Your task to perform on an android device: Set the phone to "Do not disturb". Image 0: 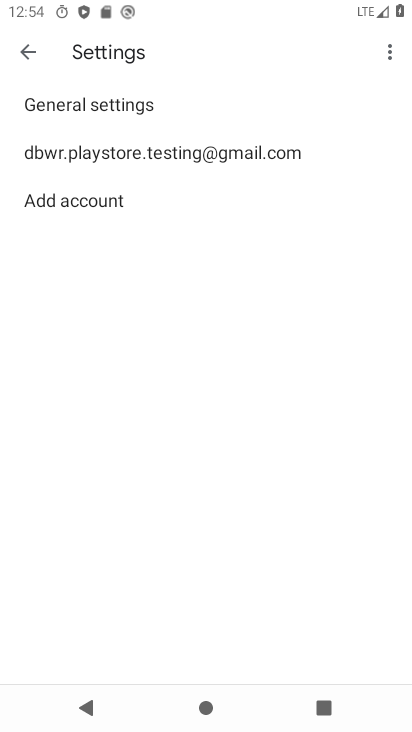
Step 0: press home button
Your task to perform on an android device: Set the phone to "Do not disturb". Image 1: 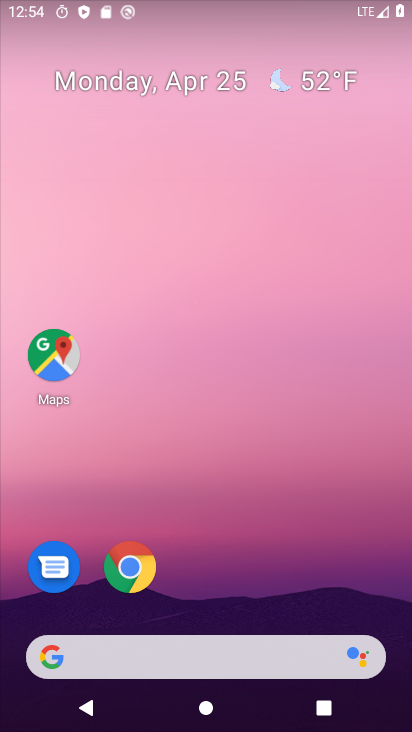
Step 1: drag from (267, 584) to (315, 66)
Your task to perform on an android device: Set the phone to "Do not disturb". Image 2: 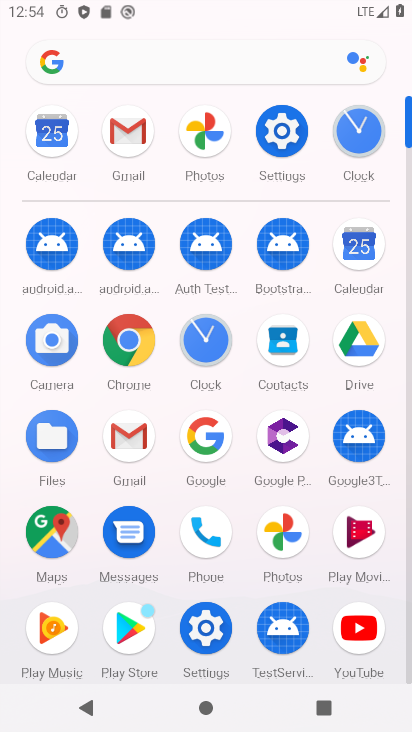
Step 2: click (282, 126)
Your task to perform on an android device: Set the phone to "Do not disturb". Image 3: 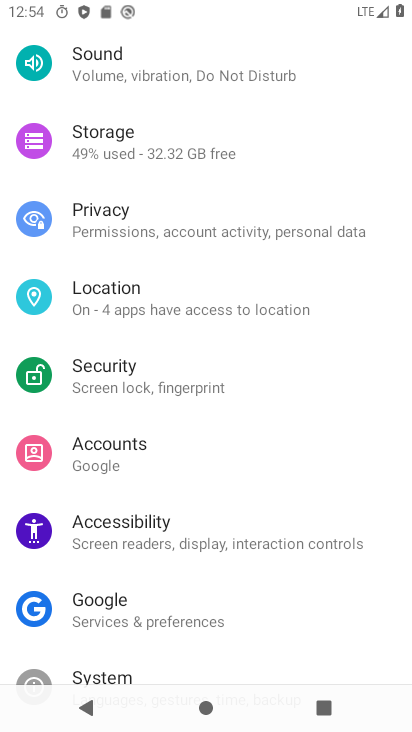
Step 3: click (251, 72)
Your task to perform on an android device: Set the phone to "Do not disturb". Image 4: 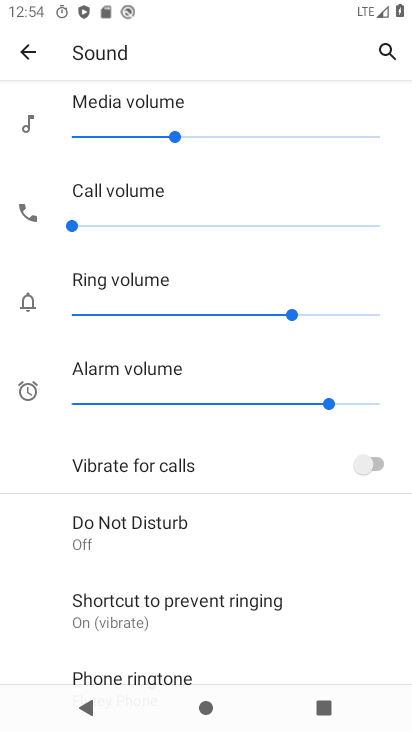
Step 4: click (159, 521)
Your task to perform on an android device: Set the phone to "Do not disturb". Image 5: 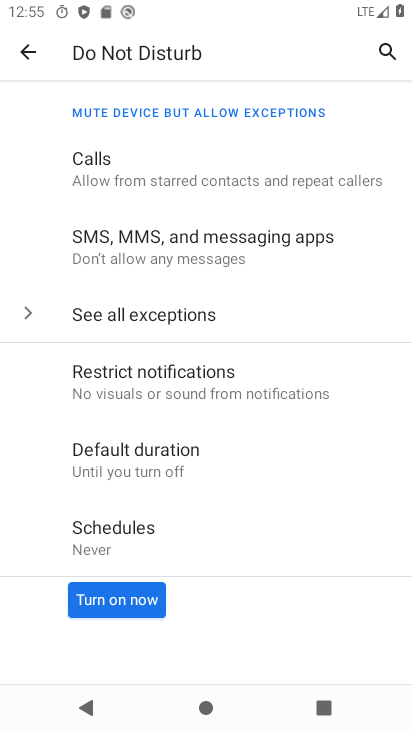
Step 5: click (147, 604)
Your task to perform on an android device: Set the phone to "Do not disturb". Image 6: 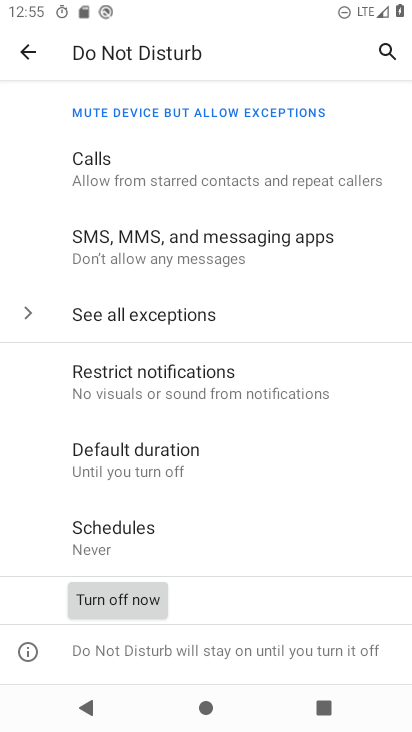
Step 6: task complete